Your task to perform on an android device: Open Google Maps Image 0: 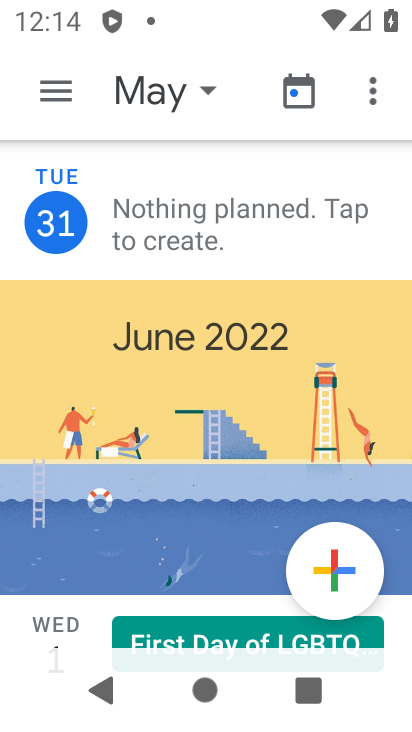
Step 0: press home button
Your task to perform on an android device: Open Google Maps Image 1: 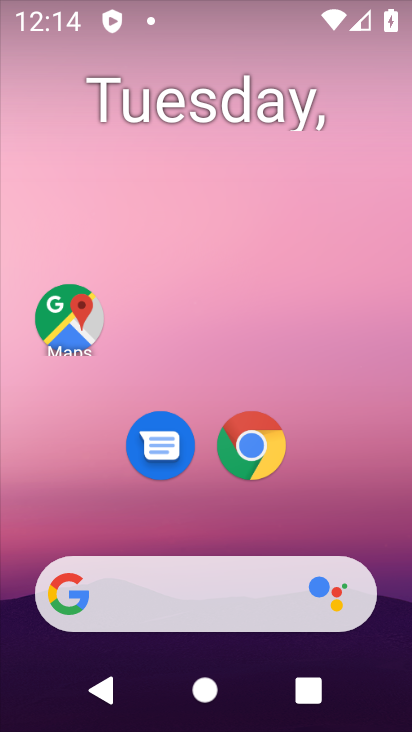
Step 1: click (78, 338)
Your task to perform on an android device: Open Google Maps Image 2: 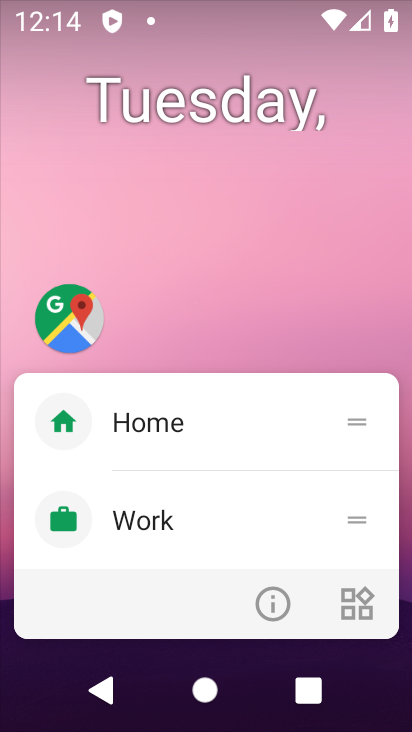
Step 2: click (77, 329)
Your task to perform on an android device: Open Google Maps Image 3: 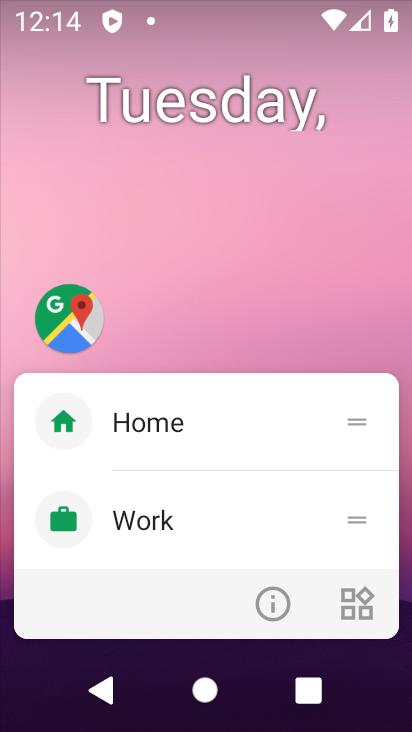
Step 3: click (73, 284)
Your task to perform on an android device: Open Google Maps Image 4: 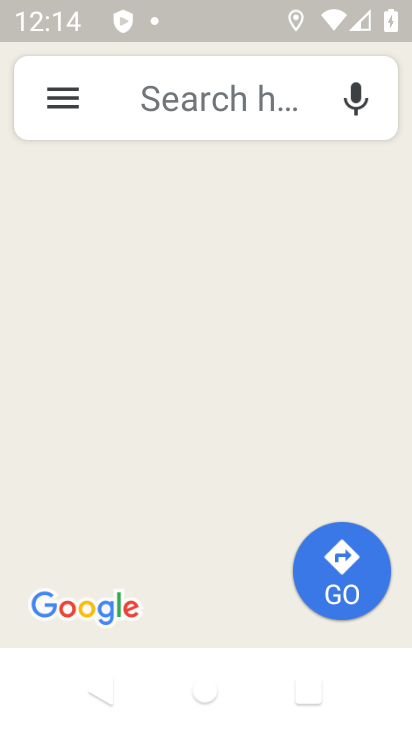
Step 4: click (62, 333)
Your task to perform on an android device: Open Google Maps Image 5: 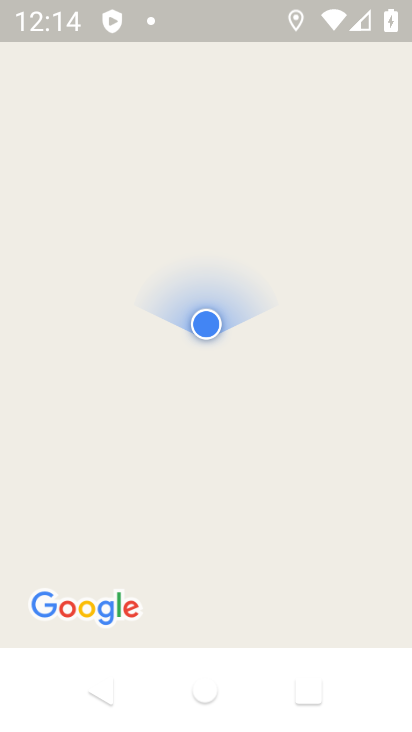
Step 5: task complete